Your task to perform on an android device: Go to Yahoo.com Image 0: 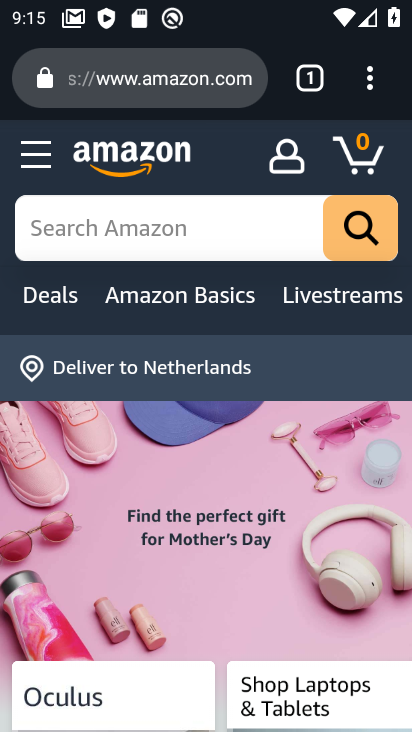
Step 0: press home button
Your task to perform on an android device: Go to Yahoo.com Image 1: 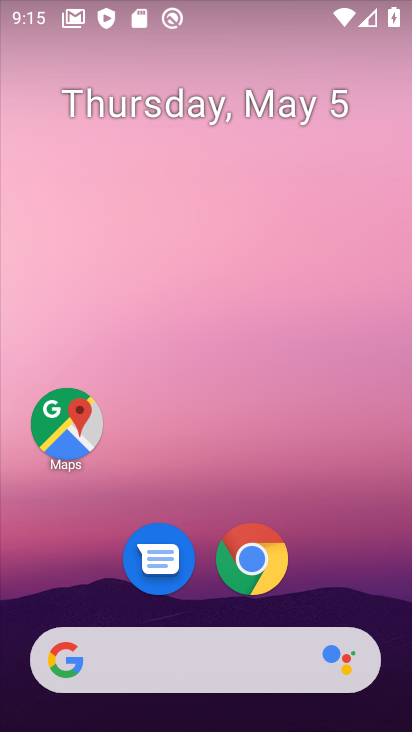
Step 1: click (253, 560)
Your task to perform on an android device: Go to Yahoo.com Image 2: 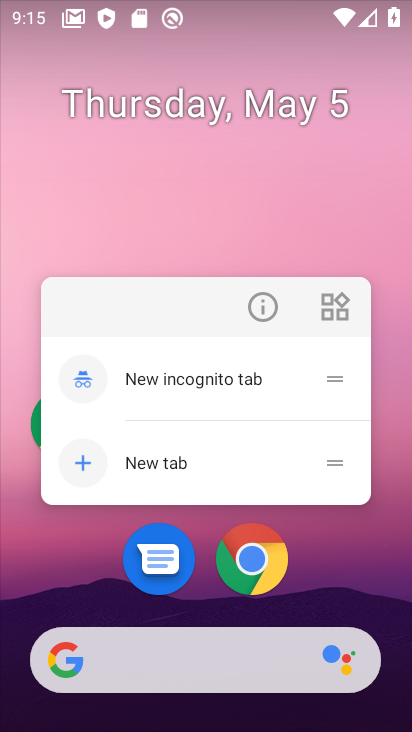
Step 2: click (246, 553)
Your task to perform on an android device: Go to Yahoo.com Image 3: 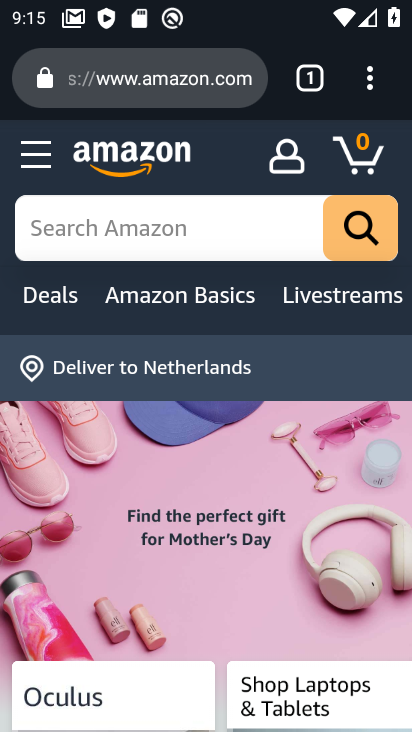
Step 3: press back button
Your task to perform on an android device: Go to Yahoo.com Image 4: 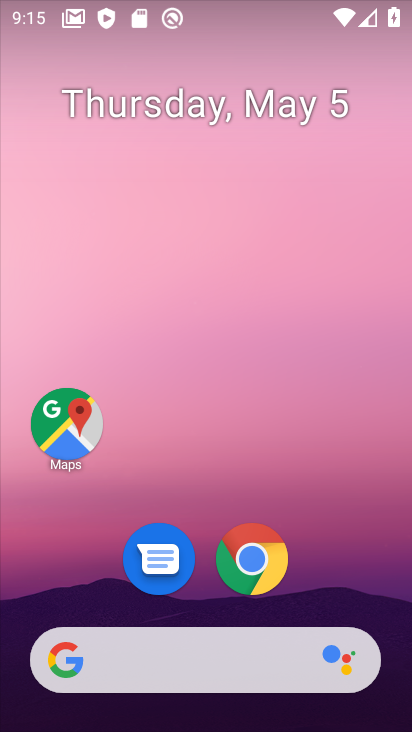
Step 4: click (245, 552)
Your task to perform on an android device: Go to Yahoo.com Image 5: 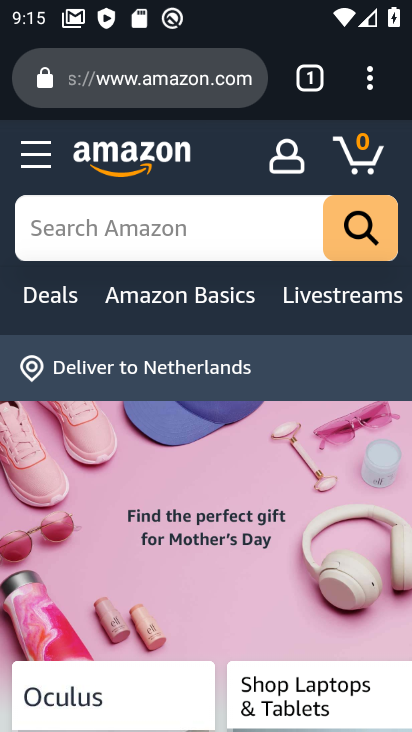
Step 5: press back button
Your task to perform on an android device: Go to Yahoo.com Image 6: 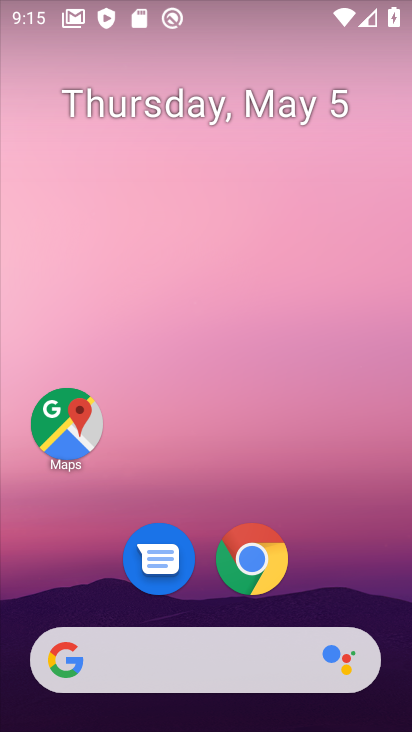
Step 6: click (251, 554)
Your task to perform on an android device: Go to Yahoo.com Image 7: 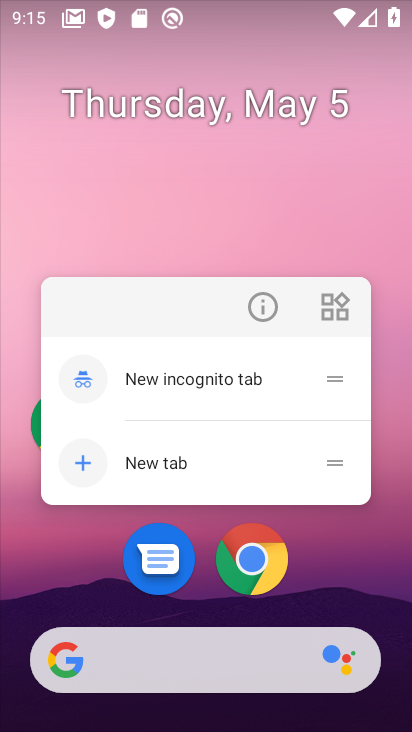
Step 7: click (259, 298)
Your task to perform on an android device: Go to Yahoo.com Image 8: 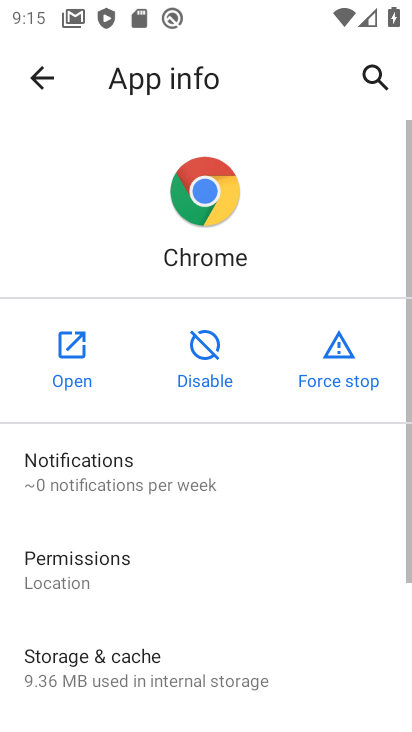
Step 8: click (68, 348)
Your task to perform on an android device: Go to Yahoo.com Image 9: 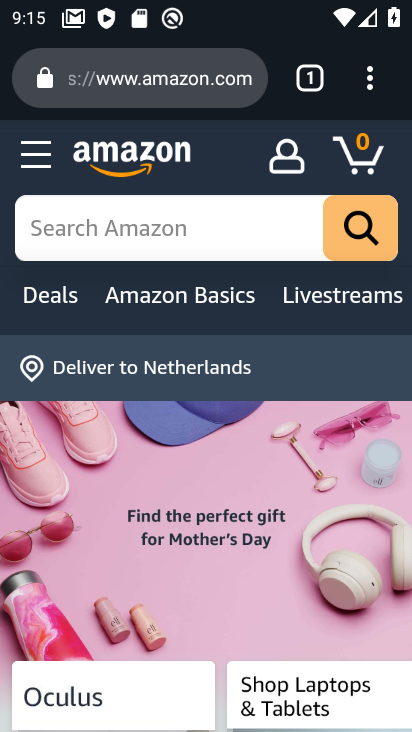
Step 9: click (312, 89)
Your task to perform on an android device: Go to Yahoo.com Image 10: 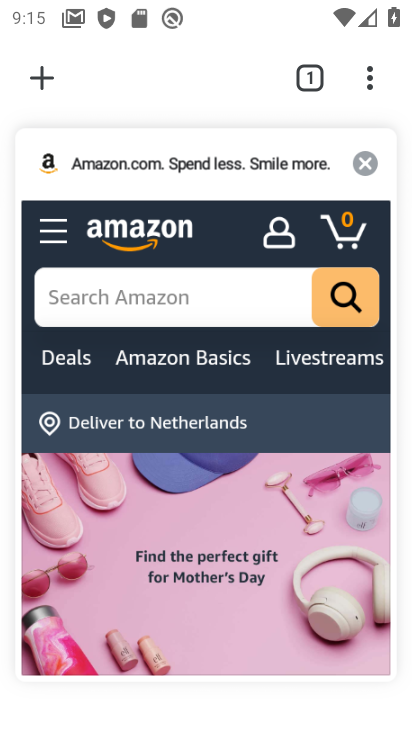
Step 10: click (42, 73)
Your task to perform on an android device: Go to Yahoo.com Image 11: 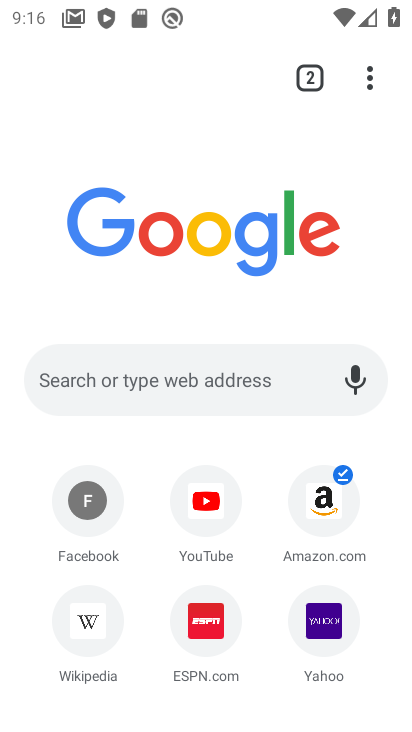
Step 11: click (326, 620)
Your task to perform on an android device: Go to Yahoo.com Image 12: 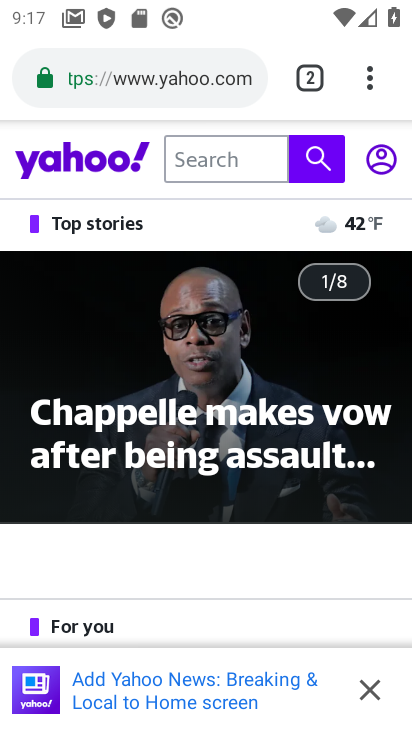
Step 12: task complete